Your task to perform on an android device: Go to display settings Image 0: 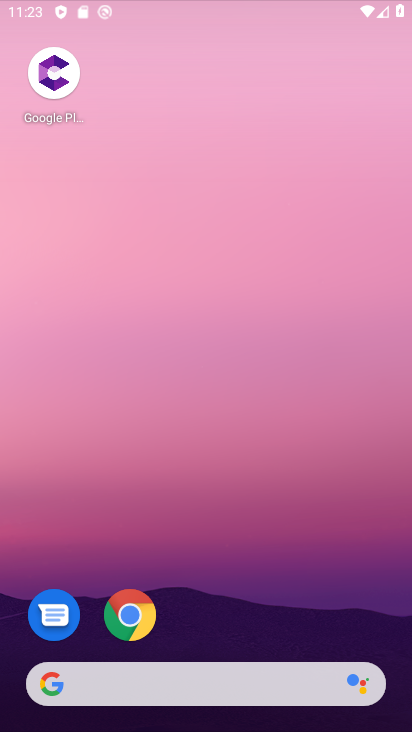
Step 0: drag from (340, 611) to (145, 8)
Your task to perform on an android device: Go to display settings Image 1: 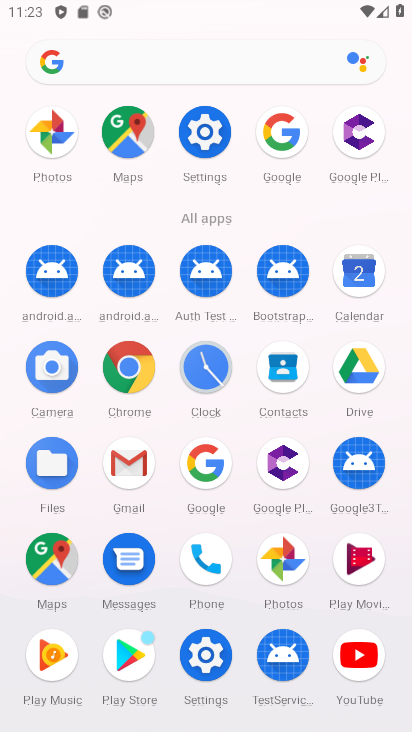
Step 1: click (214, 107)
Your task to perform on an android device: Go to display settings Image 2: 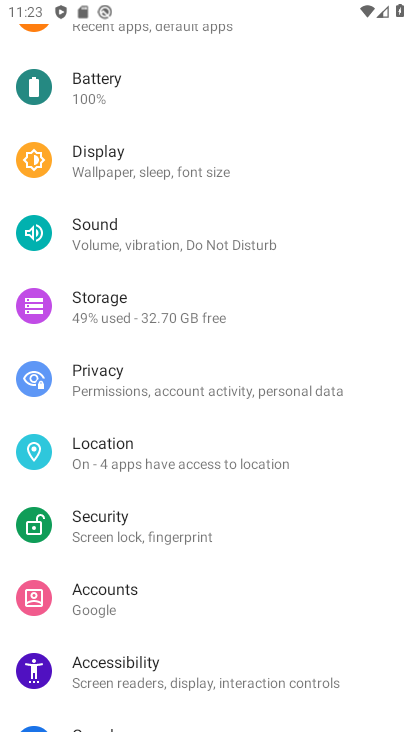
Step 2: click (165, 177)
Your task to perform on an android device: Go to display settings Image 3: 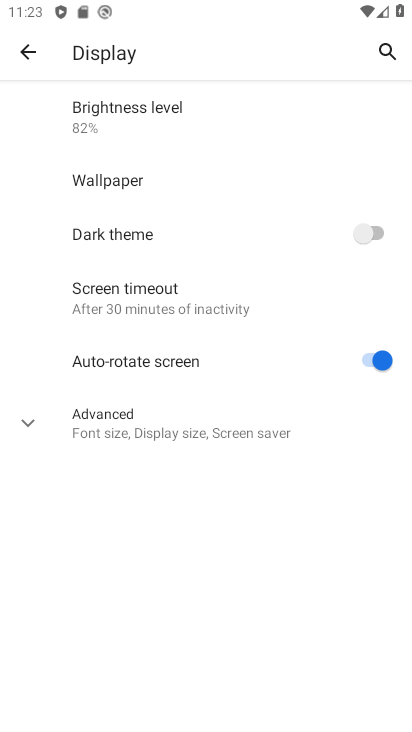
Step 3: task complete